Your task to perform on an android device: check storage Image 0: 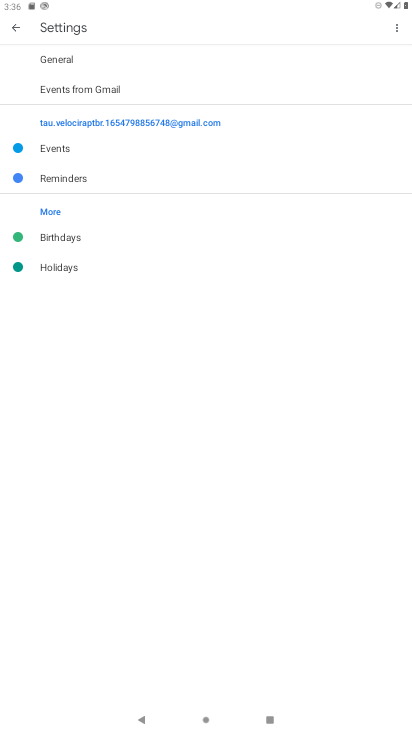
Step 0: press home button
Your task to perform on an android device: check storage Image 1: 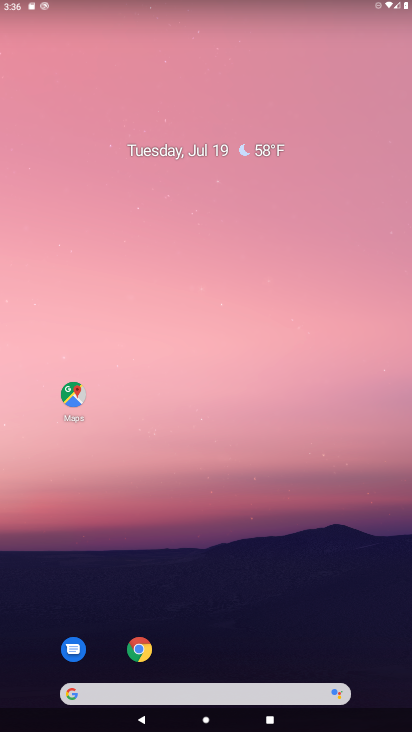
Step 1: drag from (234, 286) to (245, 69)
Your task to perform on an android device: check storage Image 2: 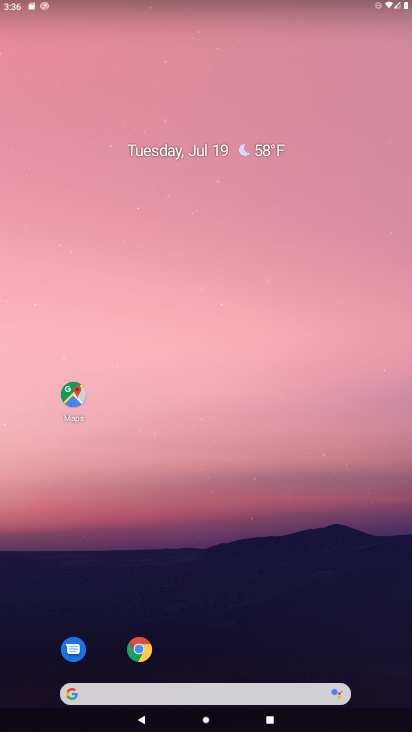
Step 2: drag from (228, 720) to (234, 52)
Your task to perform on an android device: check storage Image 3: 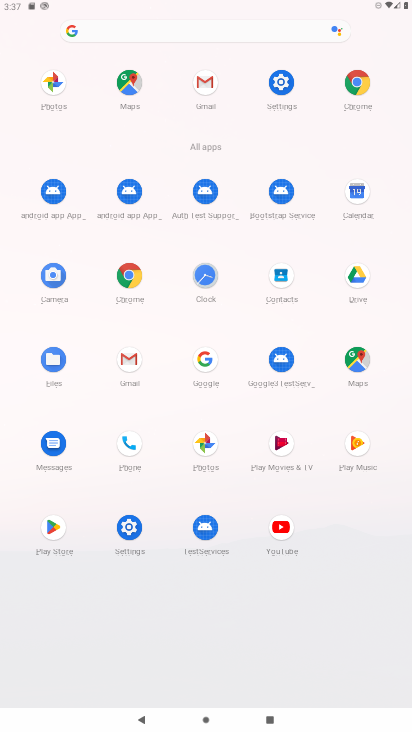
Step 3: click (131, 528)
Your task to perform on an android device: check storage Image 4: 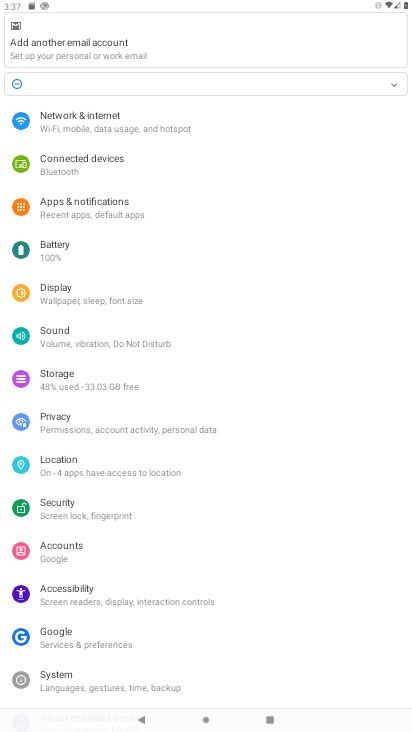
Step 4: click (70, 379)
Your task to perform on an android device: check storage Image 5: 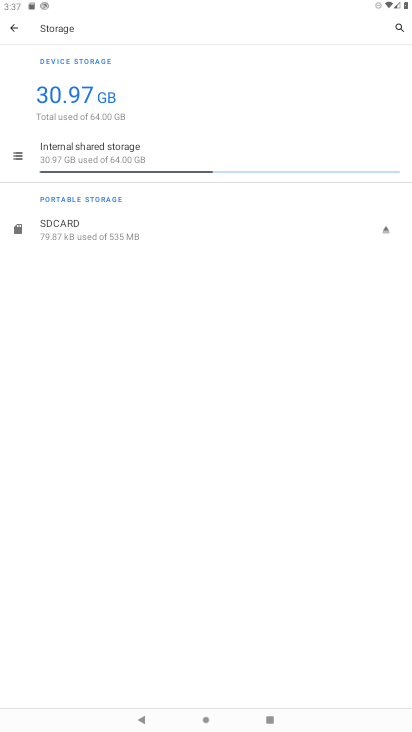
Step 5: task complete